Your task to perform on an android device: Do I have any events today? Image 0: 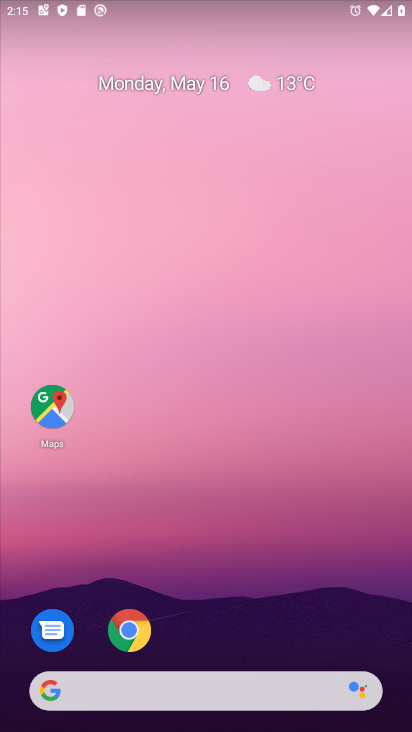
Step 0: drag from (231, 550) to (224, 8)
Your task to perform on an android device: Do I have any events today? Image 1: 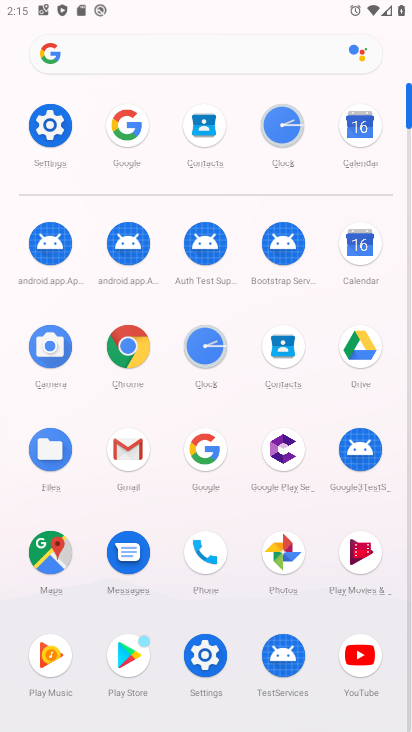
Step 1: click (347, 130)
Your task to perform on an android device: Do I have any events today? Image 2: 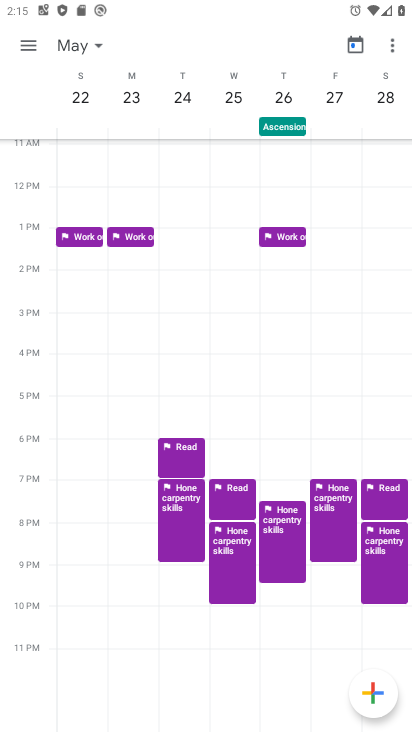
Step 2: click (22, 39)
Your task to perform on an android device: Do I have any events today? Image 3: 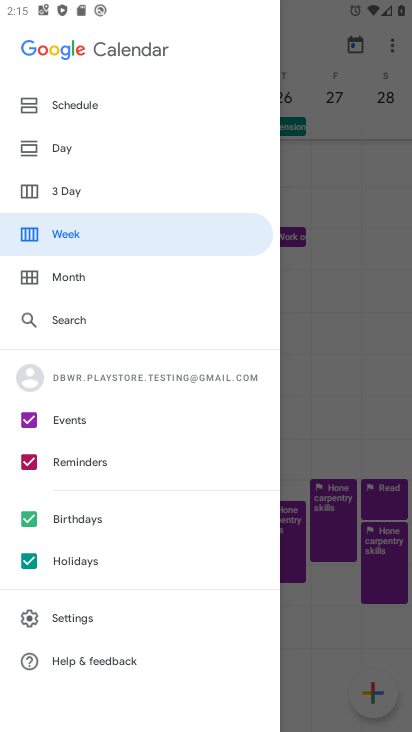
Step 3: click (127, 415)
Your task to perform on an android device: Do I have any events today? Image 4: 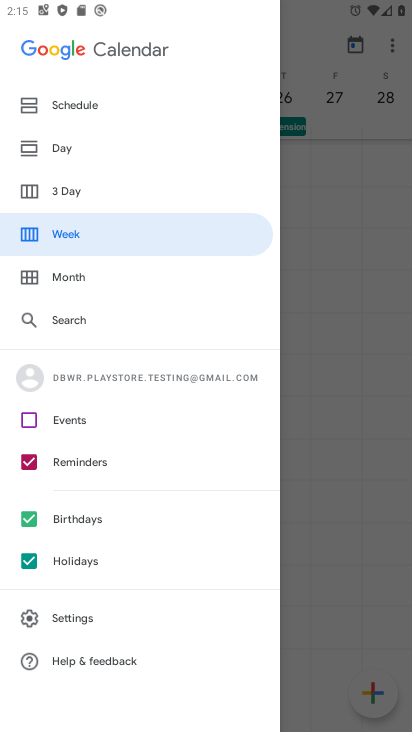
Step 4: click (124, 418)
Your task to perform on an android device: Do I have any events today? Image 5: 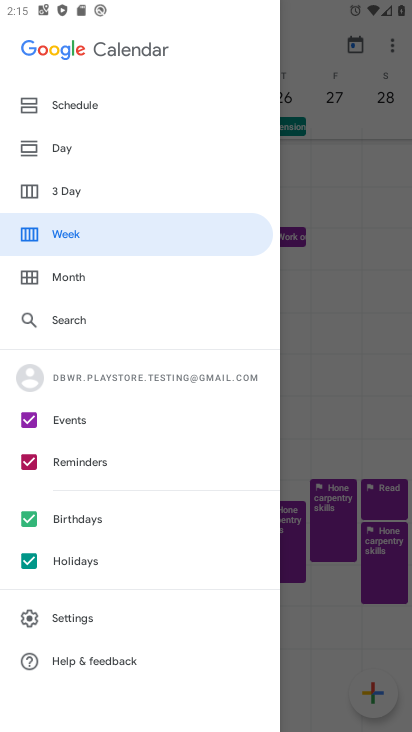
Step 5: click (357, 281)
Your task to perform on an android device: Do I have any events today? Image 6: 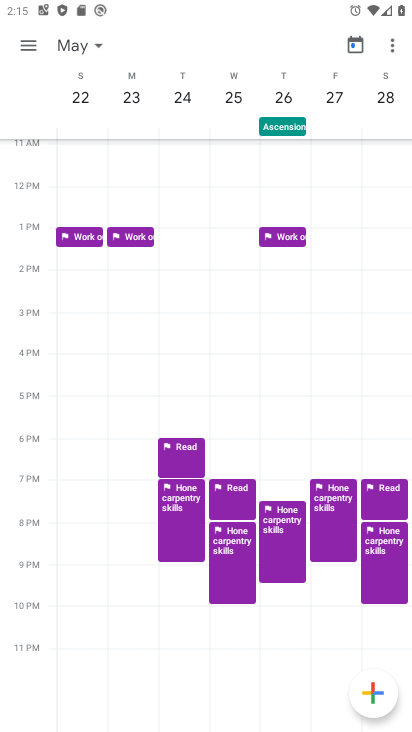
Step 6: click (270, 396)
Your task to perform on an android device: Do I have any events today? Image 7: 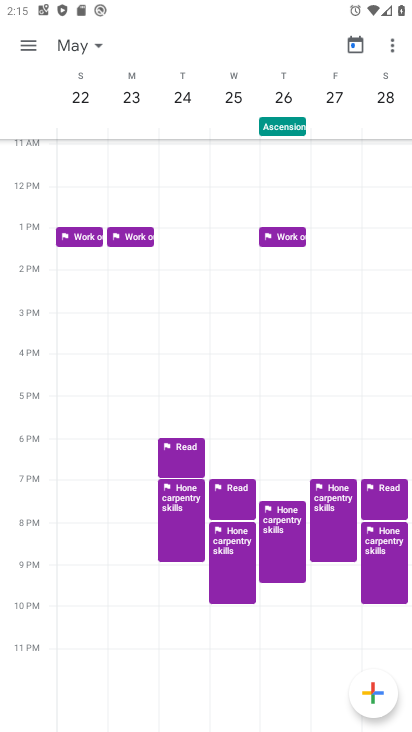
Step 7: task complete